Your task to perform on an android device: clear all cookies in the chrome app Image 0: 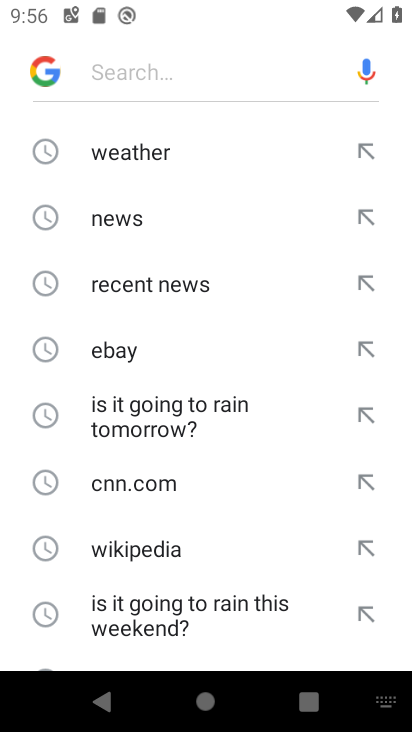
Step 0: press home button
Your task to perform on an android device: clear all cookies in the chrome app Image 1: 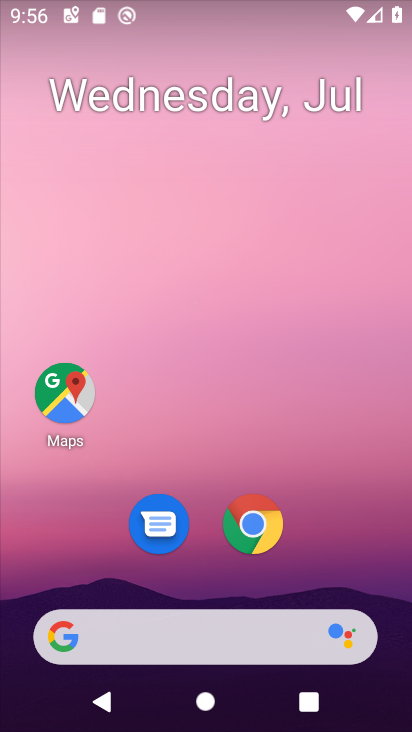
Step 1: click (260, 515)
Your task to perform on an android device: clear all cookies in the chrome app Image 2: 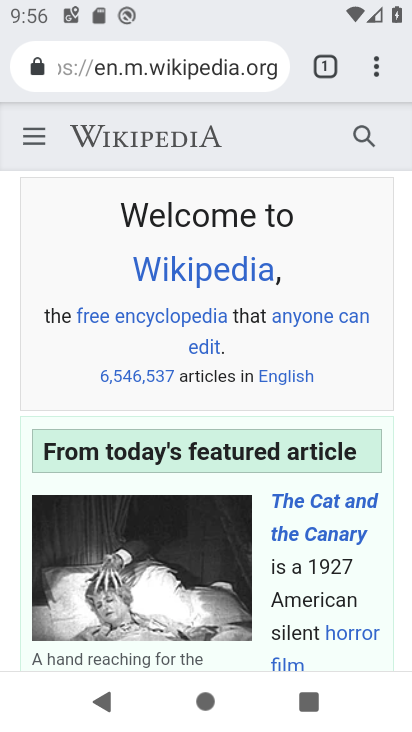
Step 2: click (375, 65)
Your task to perform on an android device: clear all cookies in the chrome app Image 3: 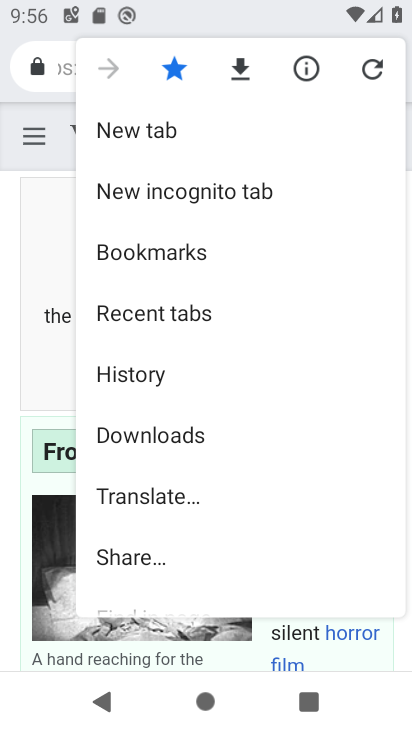
Step 3: drag from (231, 500) to (255, 159)
Your task to perform on an android device: clear all cookies in the chrome app Image 4: 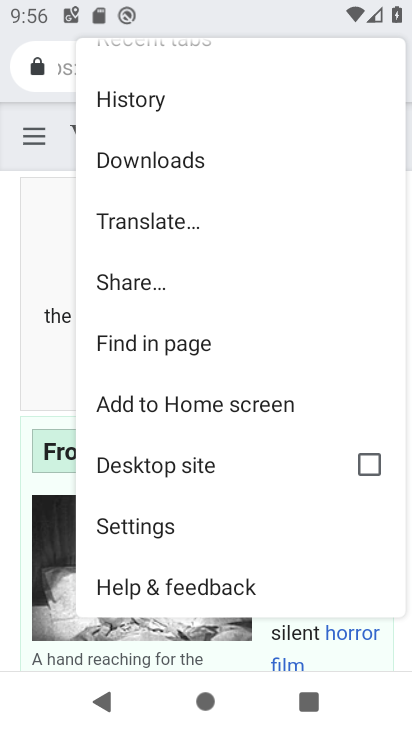
Step 4: click (175, 526)
Your task to perform on an android device: clear all cookies in the chrome app Image 5: 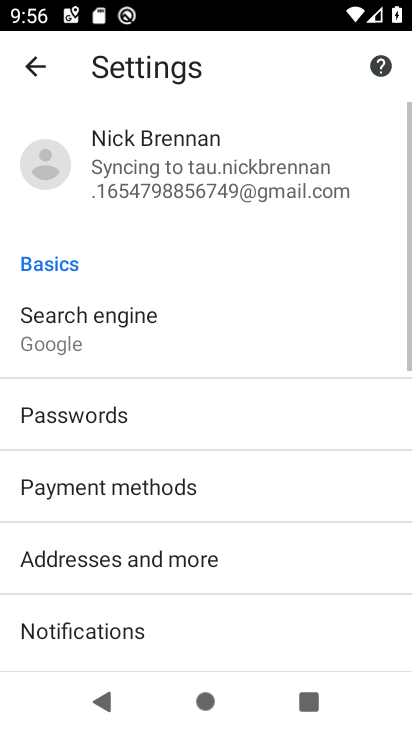
Step 5: drag from (282, 520) to (302, 154)
Your task to perform on an android device: clear all cookies in the chrome app Image 6: 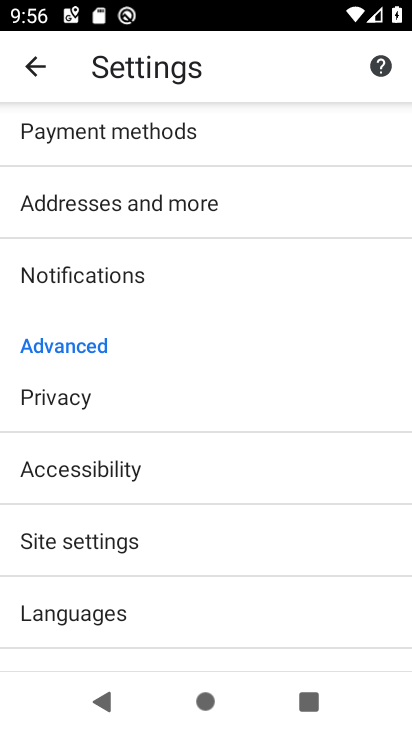
Step 6: click (64, 402)
Your task to perform on an android device: clear all cookies in the chrome app Image 7: 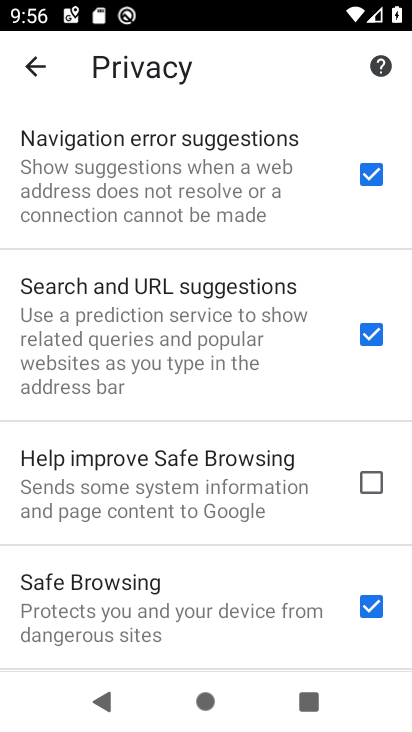
Step 7: drag from (185, 581) to (210, 61)
Your task to perform on an android device: clear all cookies in the chrome app Image 8: 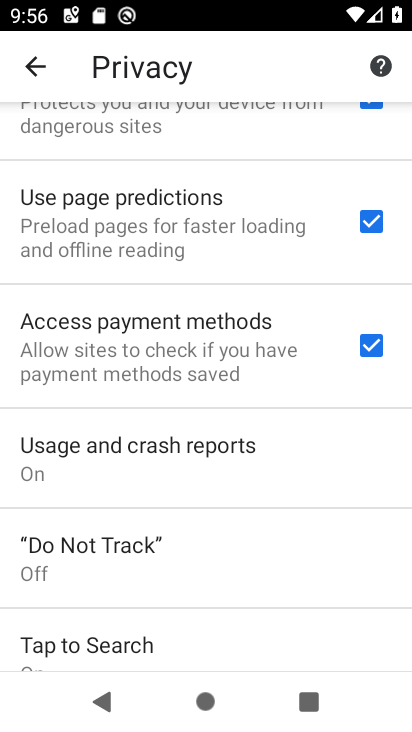
Step 8: drag from (203, 549) to (205, 172)
Your task to perform on an android device: clear all cookies in the chrome app Image 9: 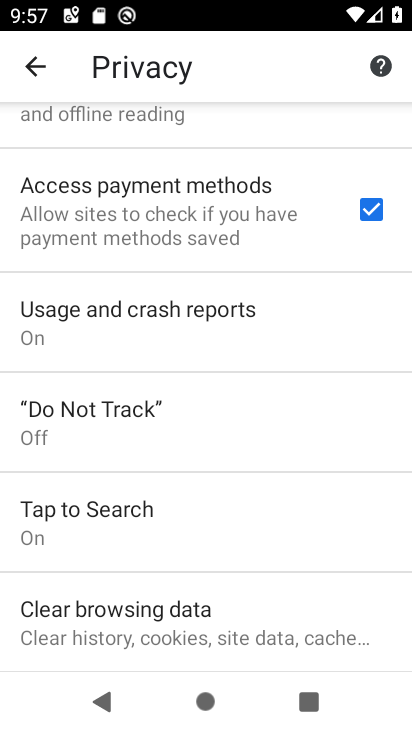
Step 9: click (219, 623)
Your task to perform on an android device: clear all cookies in the chrome app Image 10: 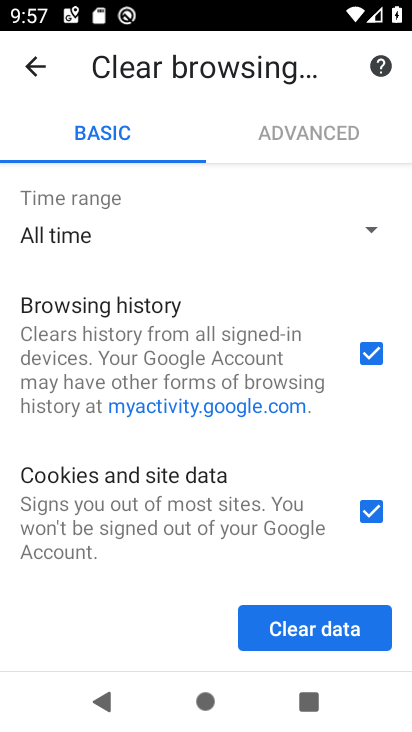
Step 10: click (368, 349)
Your task to perform on an android device: clear all cookies in the chrome app Image 11: 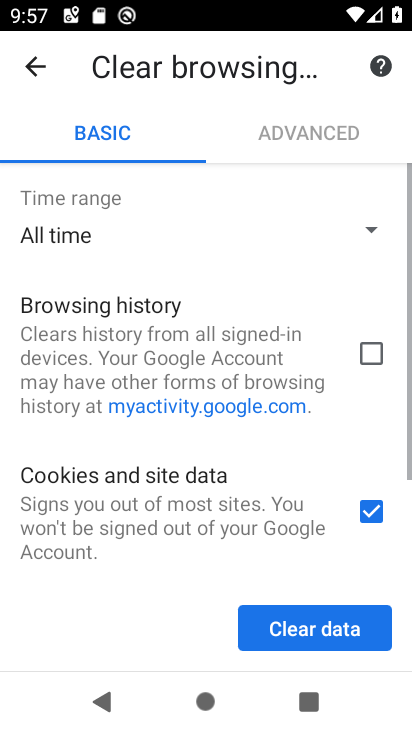
Step 11: drag from (236, 492) to (230, 232)
Your task to perform on an android device: clear all cookies in the chrome app Image 12: 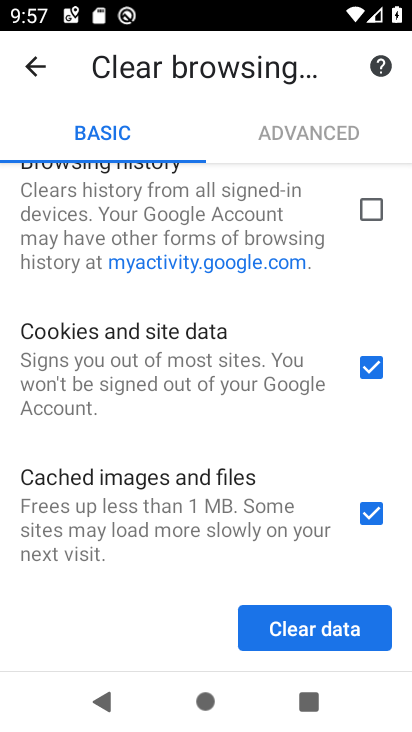
Step 12: click (375, 509)
Your task to perform on an android device: clear all cookies in the chrome app Image 13: 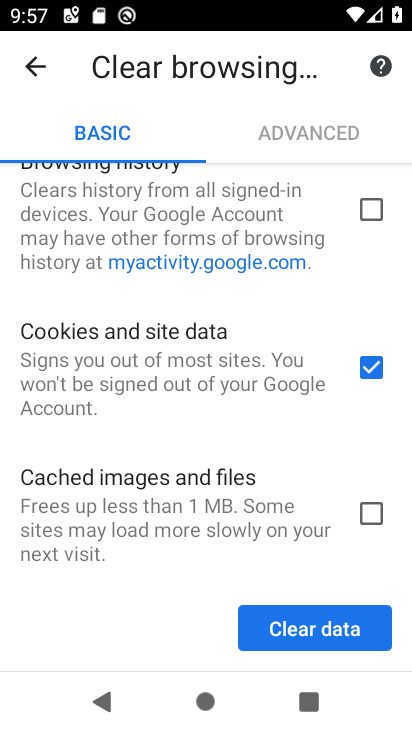
Step 13: click (329, 634)
Your task to perform on an android device: clear all cookies in the chrome app Image 14: 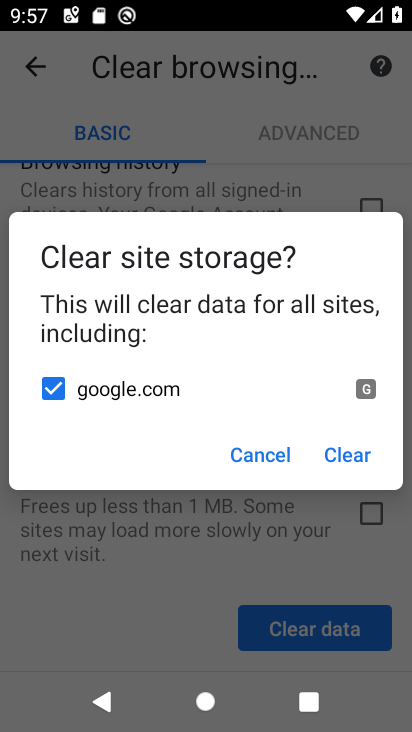
Step 14: click (349, 449)
Your task to perform on an android device: clear all cookies in the chrome app Image 15: 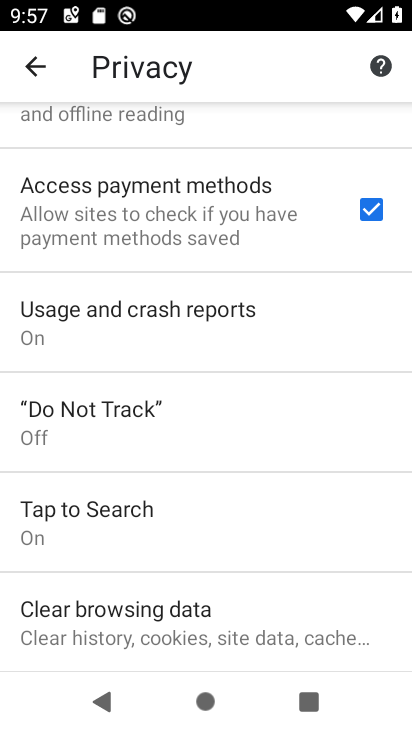
Step 15: task complete